Your task to perform on an android device: Go to Wikipedia Image 0: 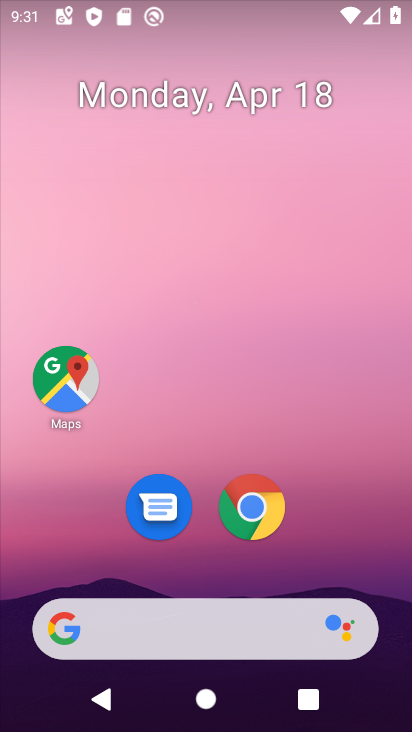
Step 0: click (244, 495)
Your task to perform on an android device: Go to Wikipedia Image 1: 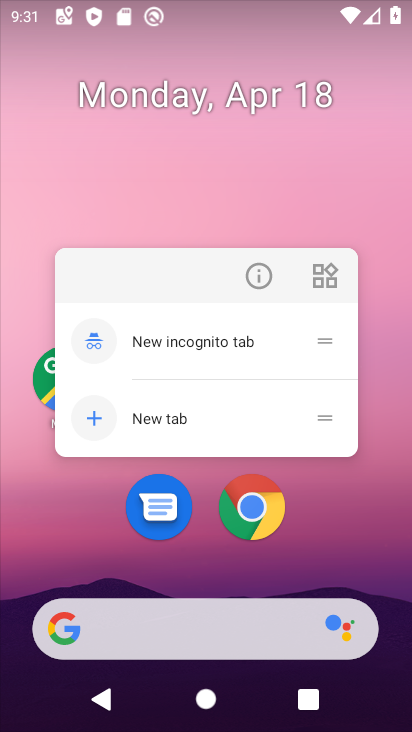
Step 1: click (245, 498)
Your task to perform on an android device: Go to Wikipedia Image 2: 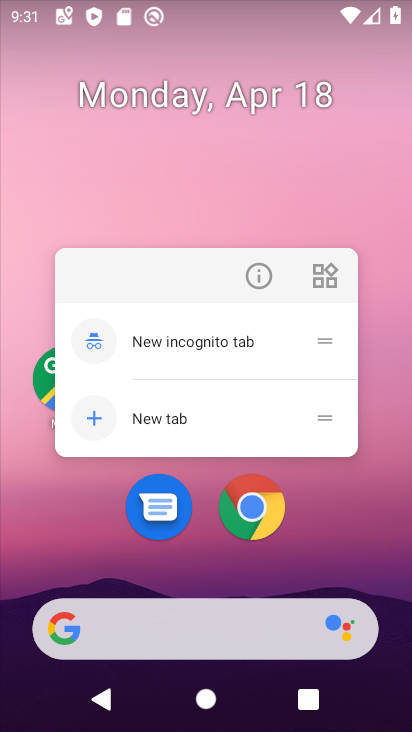
Step 2: click (247, 501)
Your task to perform on an android device: Go to Wikipedia Image 3: 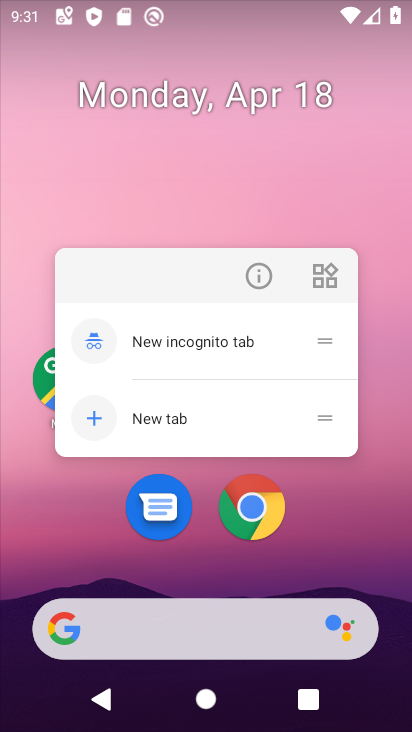
Step 3: click (264, 494)
Your task to perform on an android device: Go to Wikipedia Image 4: 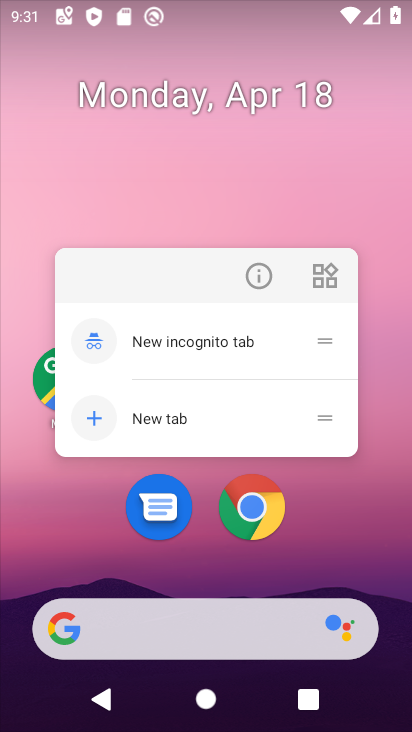
Step 4: click (263, 519)
Your task to perform on an android device: Go to Wikipedia Image 5: 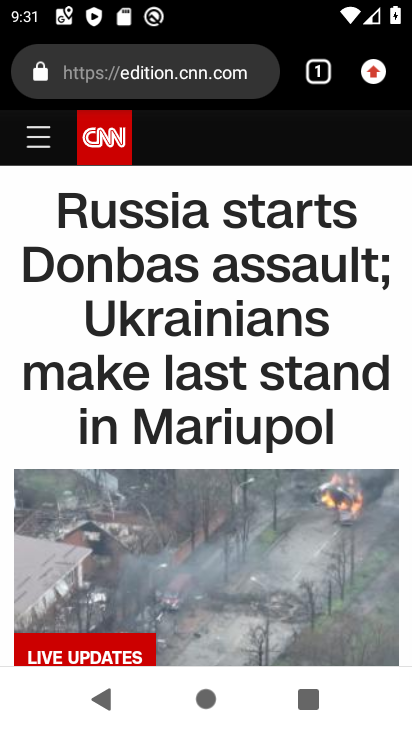
Step 5: click (307, 79)
Your task to perform on an android device: Go to Wikipedia Image 6: 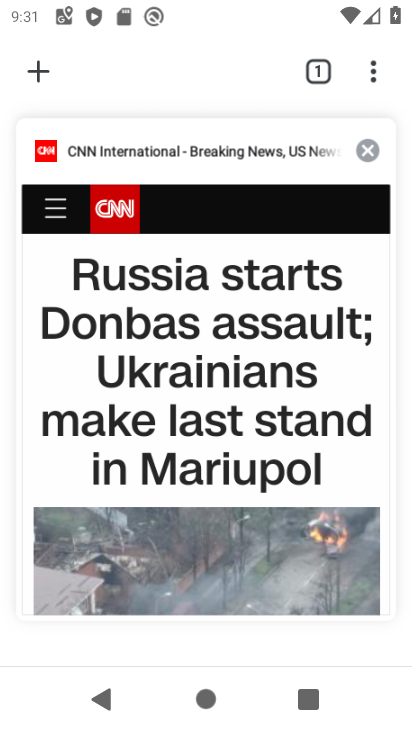
Step 6: click (24, 58)
Your task to perform on an android device: Go to Wikipedia Image 7: 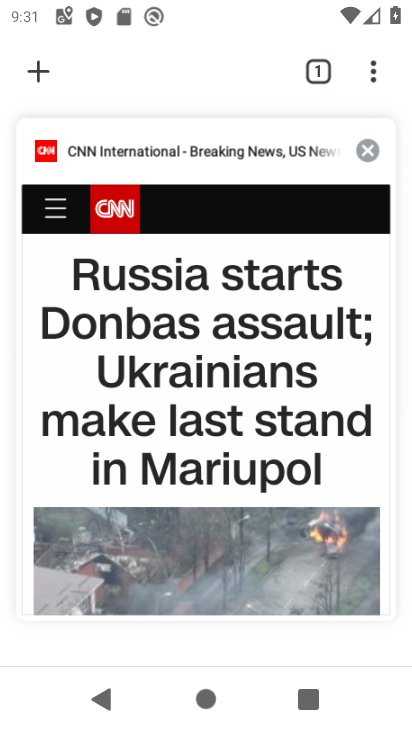
Step 7: click (38, 70)
Your task to perform on an android device: Go to Wikipedia Image 8: 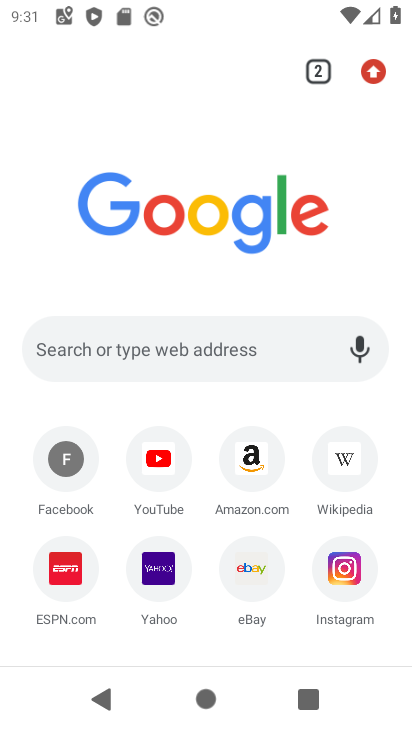
Step 8: click (355, 458)
Your task to perform on an android device: Go to Wikipedia Image 9: 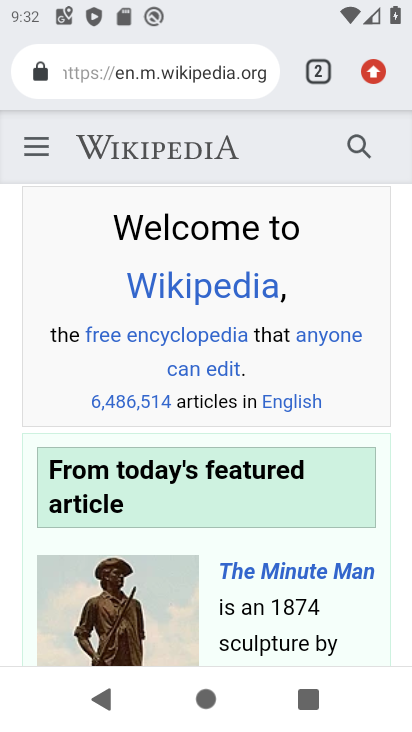
Step 9: task complete